Your task to perform on an android device: Open wifi settings Image 0: 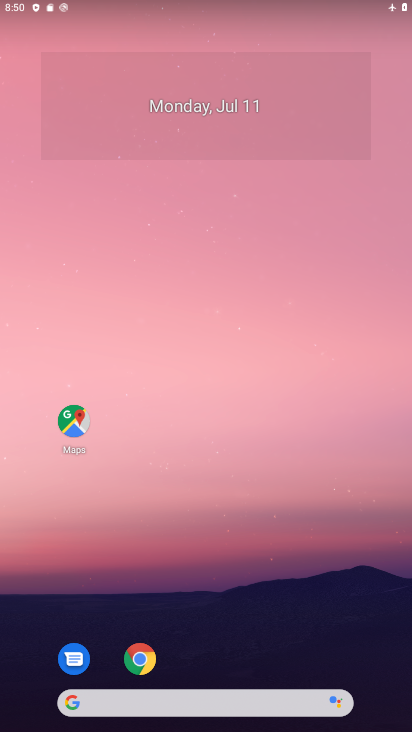
Step 0: drag from (208, 569) to (251, 80)
Your task to perform on an android device: Open wifi settings Image 1: 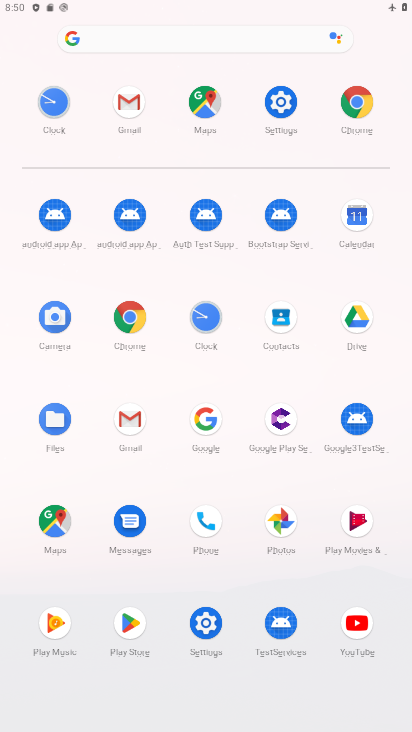
Step 1: click (276, 103)
Your task to perform on an android device: Open wifi settings Image 2: 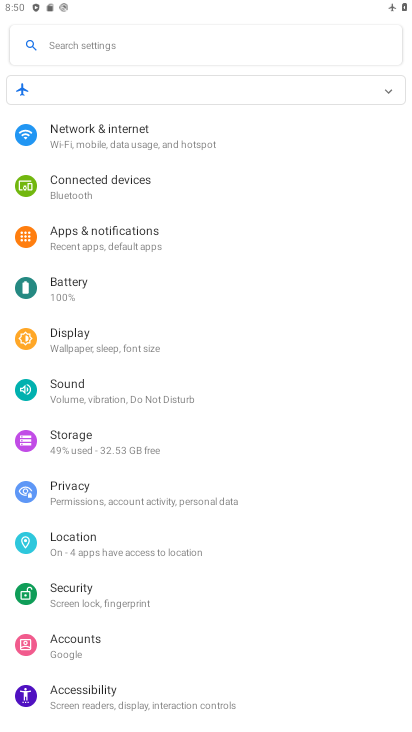
Step 2: click (157, 139)
Your task to perform on an android device: Open wifi settings Image 3: 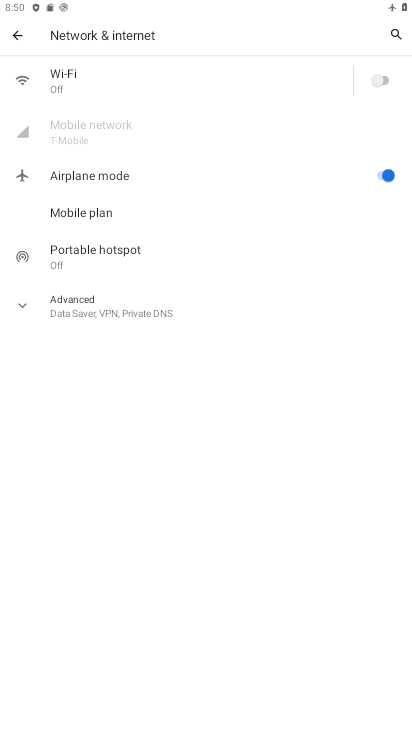
Step 3: click (109, 82)
Your task to perform on an android device: Open wifi settings Image 4: 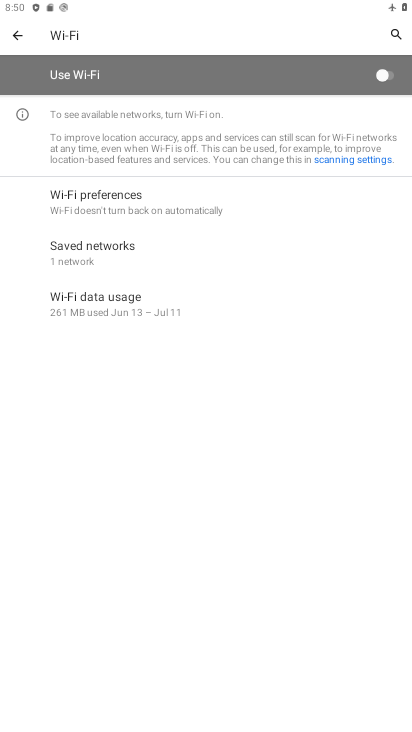
Step 4: task complete